Your task to perform on an android device: Open sound settings Image 0: 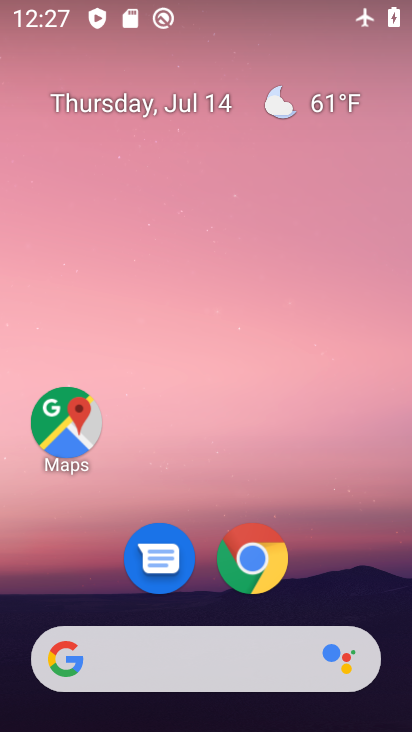
Step 0: drag from (123, 589) to (171, 58)
Your task to perform on an android device: Open sound settings Image 1: 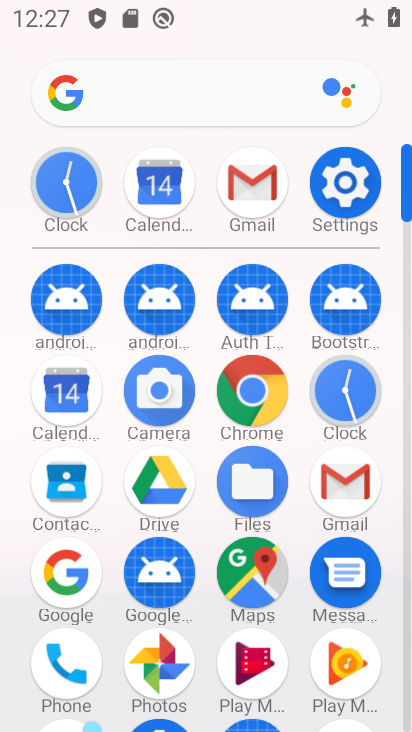
Step 1: click (346, 184)
Your task to perform on an android device: Open sound settings Image 2: 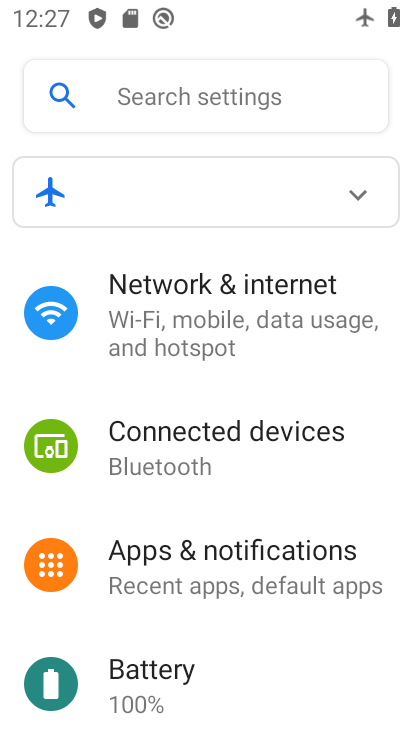
Step 2: drag from (204, 661) to (277, 96)
Your task to perform on an android device: Open sound settings Image 3: 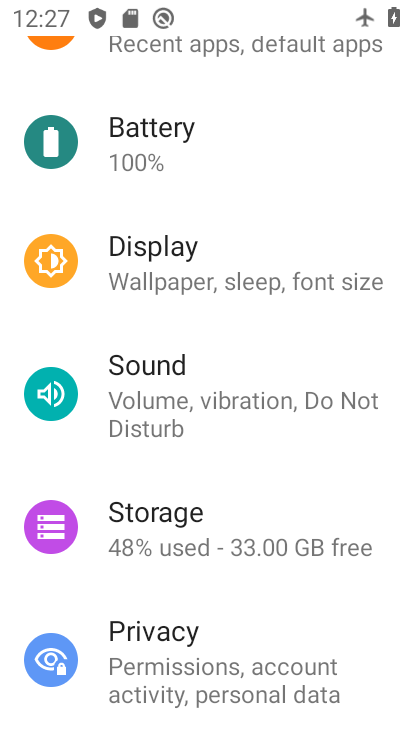
Step 3: click (210, 380)
Your task to perform on an android device: Open sound settings Image 4: 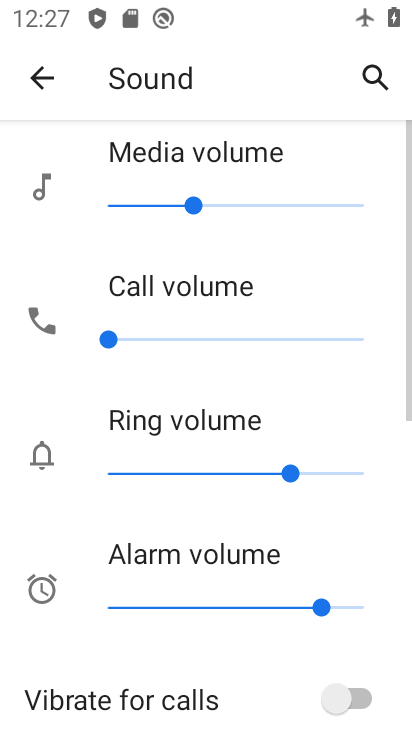
Step 4: task complete